Your task to perform on an android device: Open Maps and search for coffee Image 0: 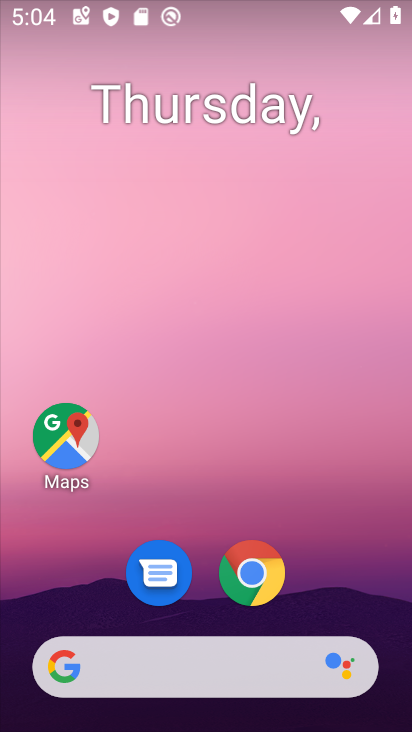
Step 0: drag from (321, 585) to (284, 45)
Your task to perform on an android device: Open Maps and search for coffee Image 1: 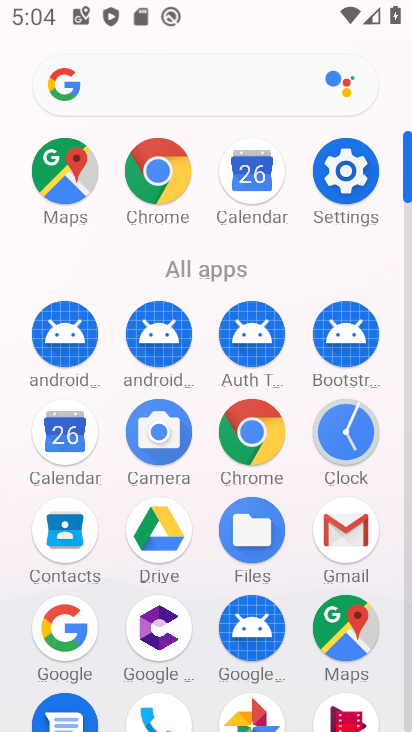
Step 1: drag from (17, 558) to (23, 196)
Your task to perform on an android device: Open Maps and search for coffee Image 2: 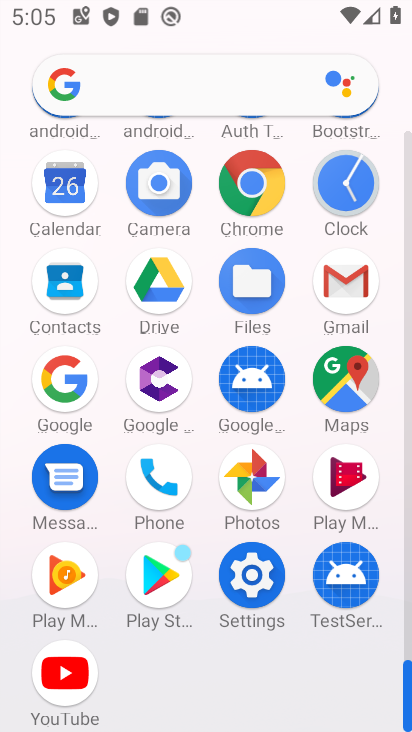
Step 2: click (342, 371)
Your task to perform on an android device: Open Maps and search for coffee Image 3: 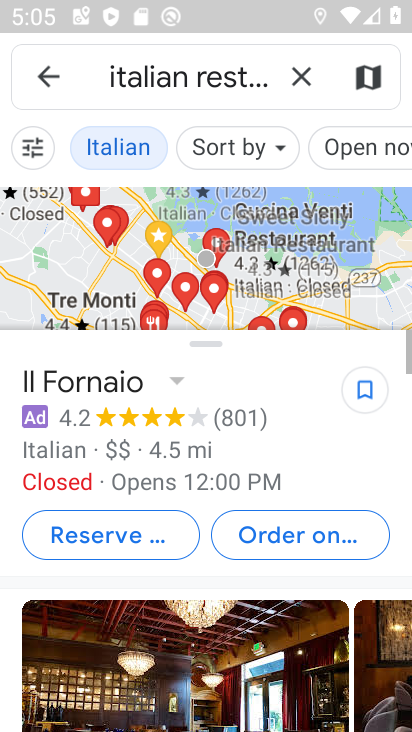
Step 3: click (300, 71)
Your task to perform on an android device: Open Maps and search for coffee Image 4: 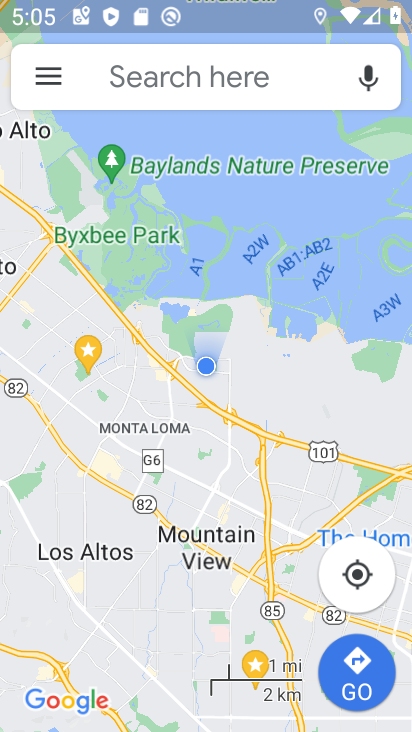
Step 4: click (292, 71)
Your task to perform on an android device: Open Maps and search for coffee Image 5: 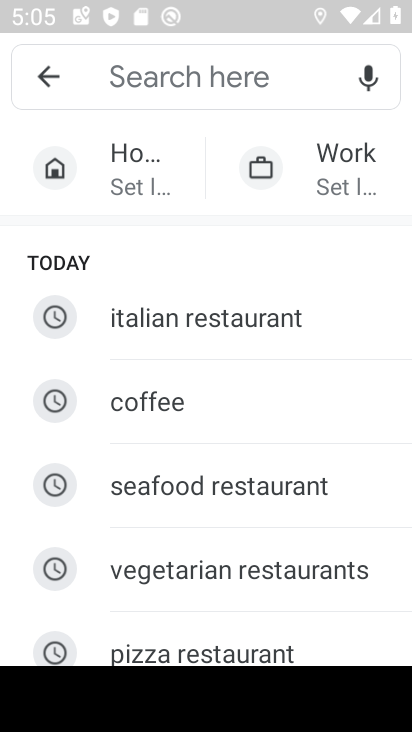
Step 5: click (201, 407)
Your task to perform on an android device: Open Maps and search for coffee Image 6: 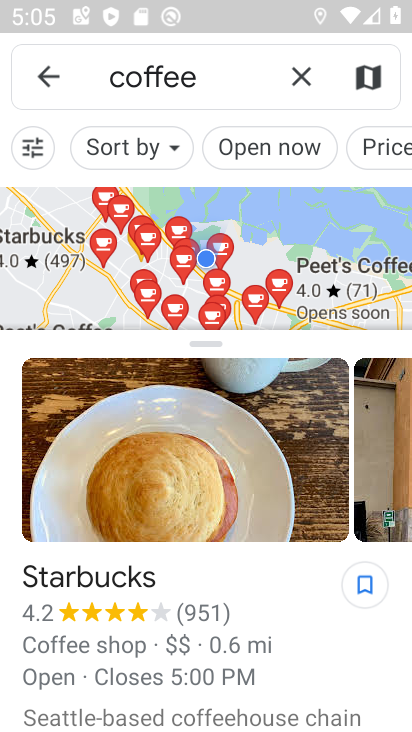
Step 6: task complete